Your task to perform on an android device: Search for sushi restaurants on Maps Image 0: 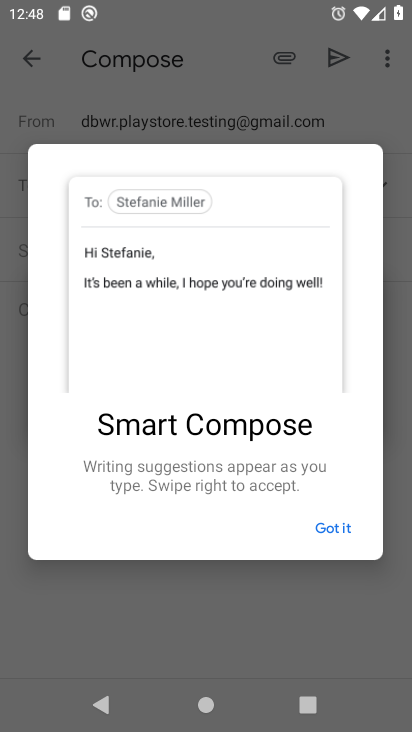
Step 0: press home button
Your task to perform on an android device: Search for sushi restaurants on Maps Image 1: 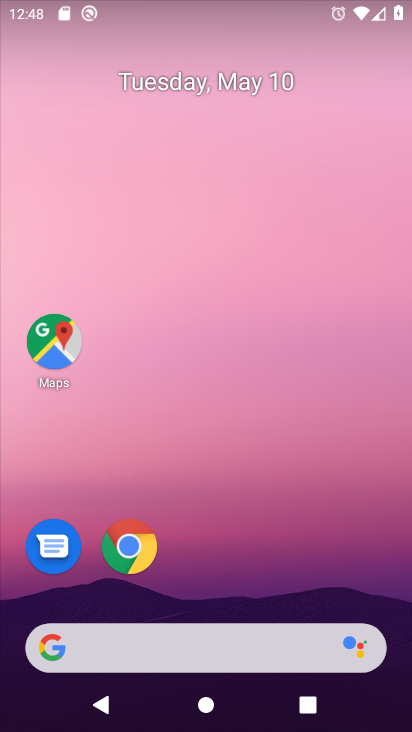
Step 1: click (64, 356)
Your task to perform on an android device: Search for sushi restaurants on Maps Image 2: 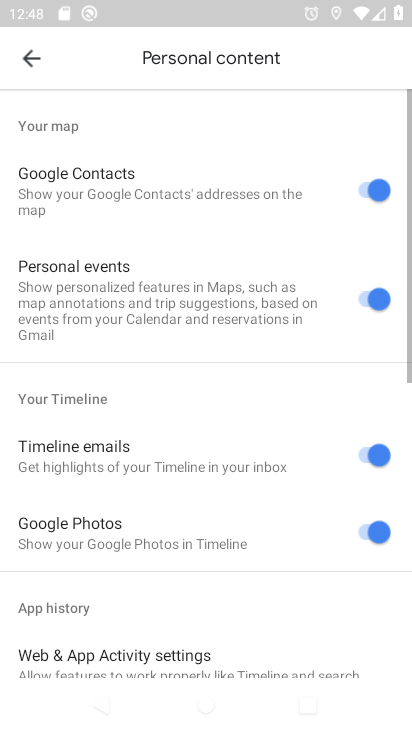
Step 2: click (42, 52)
Your task to perform on an android device: Search for sushi restaurants on Maps Image 3: 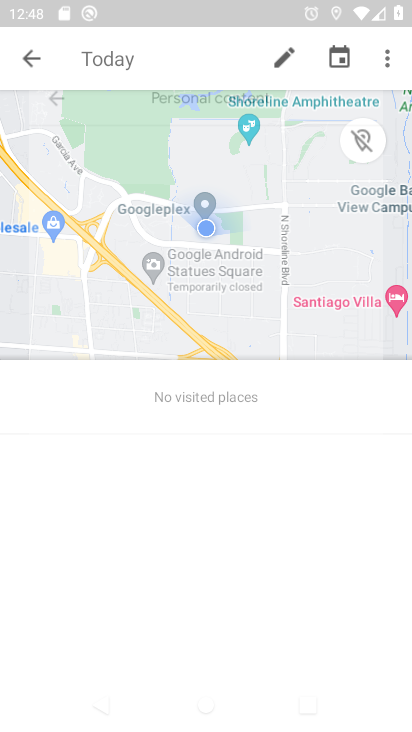
Step 3: click (42, 52)
Your task to perform on an android device: Search for sushi restaurants on Maps Image 4: 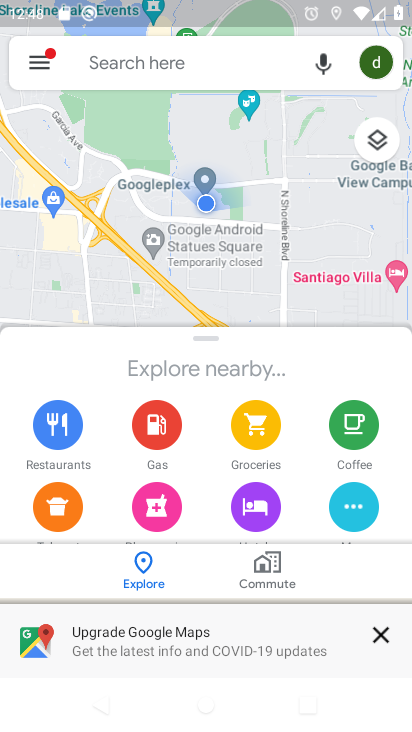
Step 4: click (152, 50)
Your task to perform on an android device: Search for sushi restaurants on Maps Image 5: 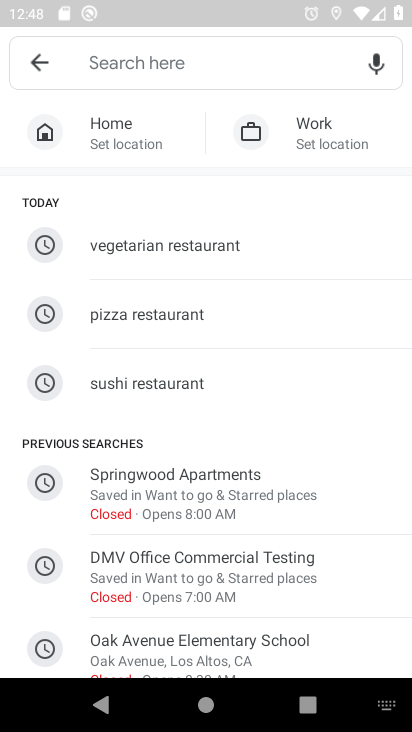
Step 5: type " sushi restaurants "
Your task to perform on an android device: Search for sushi restaurants on Maps Image 6: 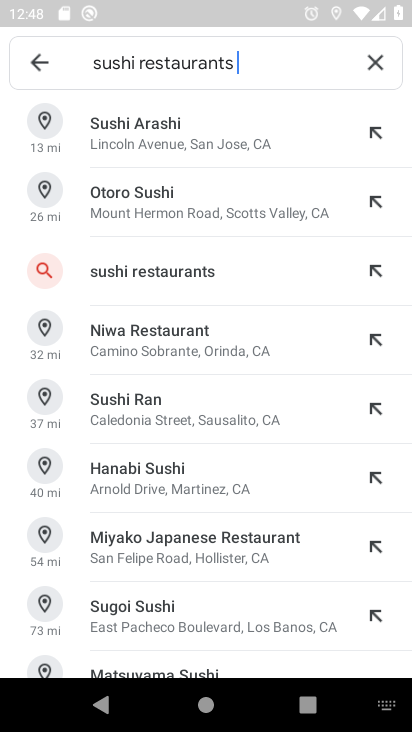
Step 6: click (177, 277)
Your task to perform on an android device: Search for sushi restaurants on Maps Image 7: 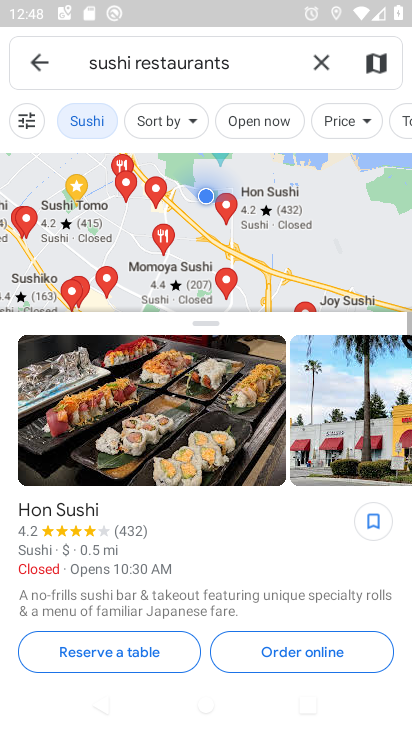
Step 7: task complete